Your task to perform on an android device: Empty the shopping cart on costco.com. Image 0: 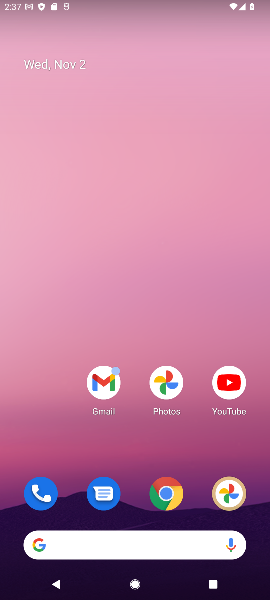
Step 0: click (165, 488)
Your task to perform on an android device: Empty the shopping cart on costco.com. Image 1: 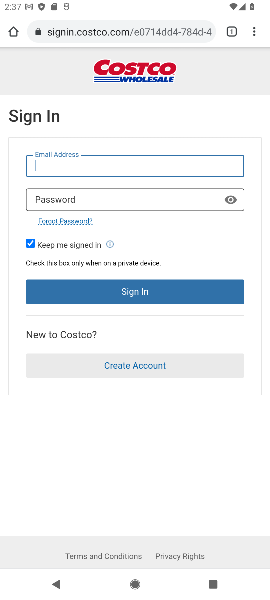
Step 1: press back button
Your task to perform on an android device: Empty the shopping cart on costco.com. Image 2: 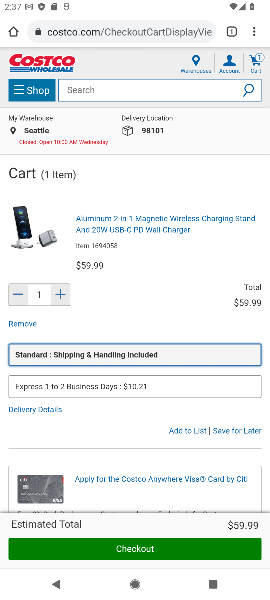
Step 2: click (254, 68)
Your task to perform on an android device: Empty the shopping cart on costco.com. Image 3: 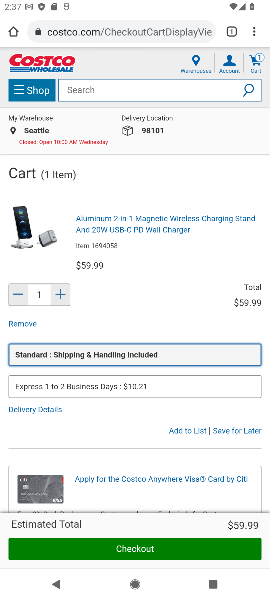
Step 3: click (17, 291)
Your task to perform on an android device: Empty the shopping cart on costco.com. Image 4: 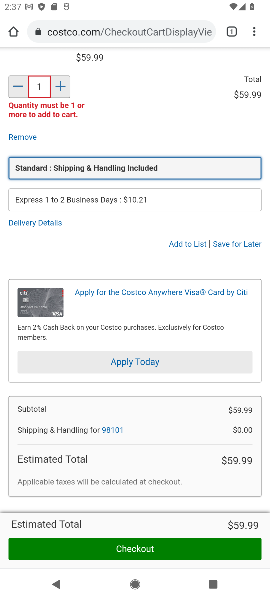
Step 4: click (16, 89)
Your task to perform on an android device: Empty the shopping cart on costco.com. Image 5: 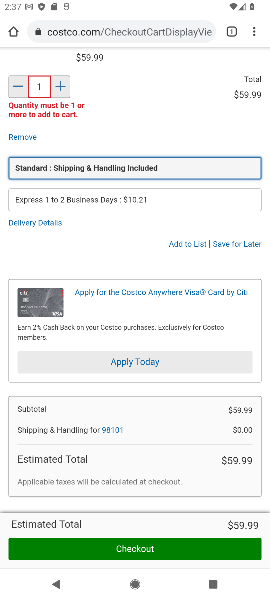
Step 5: drag from (152, 88) to (157, 343)
Your task to perform on an android device: Empty the shopping cart on costco.com. Image 6: 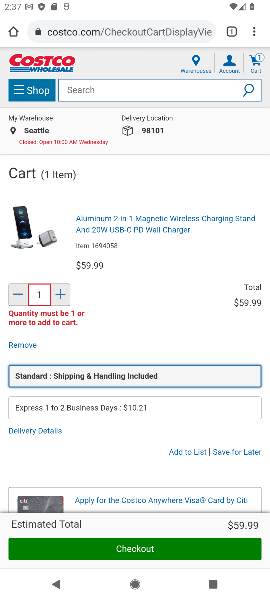
Step 6: click (35, 297)
Your task to perform on an android device: Empty the shopping cart on costco.com. Image 7: 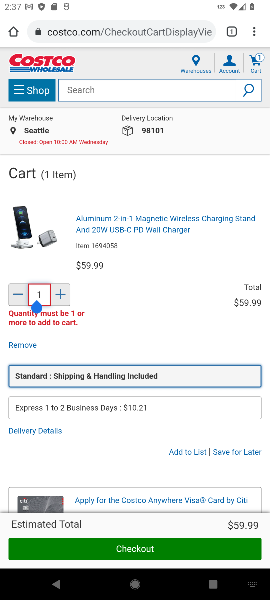
Step 7: click (19, 294)
Your task to perform on an android device: Empty the shopping cart on costco.com. Image 8: 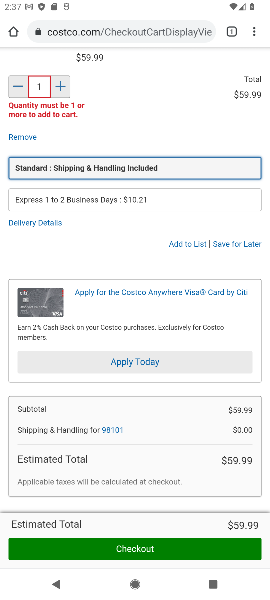
Step 8: task complete